Your task to perform on an android device: Open sound settings Image 0: 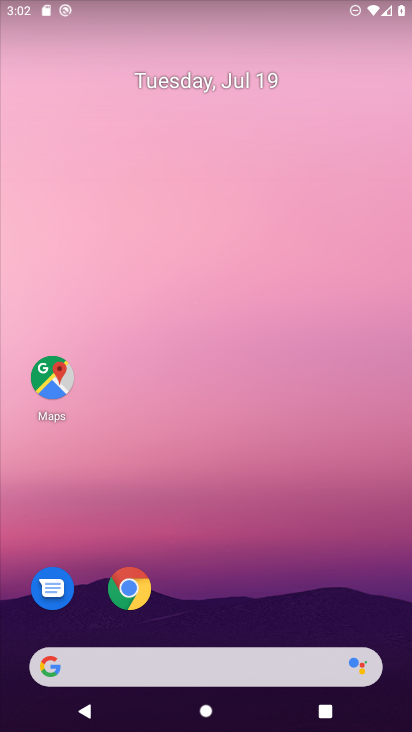
Step 0: drag from (201, 514) to (232, 206)
Your task to perform on an android device: Open sound settings Image 1: 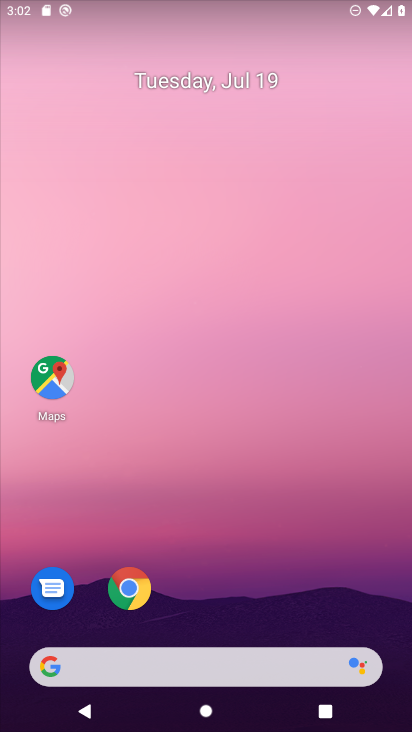
Step 1: drag from (176, 544) to (180, 189)
Your task to perform on an android device: Open sound settings Image 2: 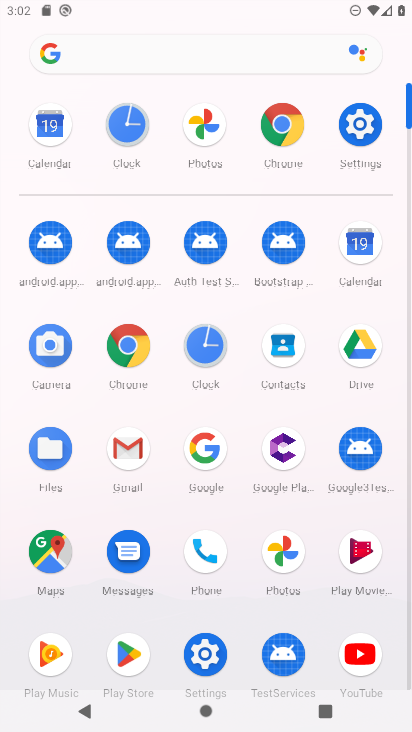
Step 2: click (356, 128)
Your task to perform on an android device: Open sound settings Image 3: 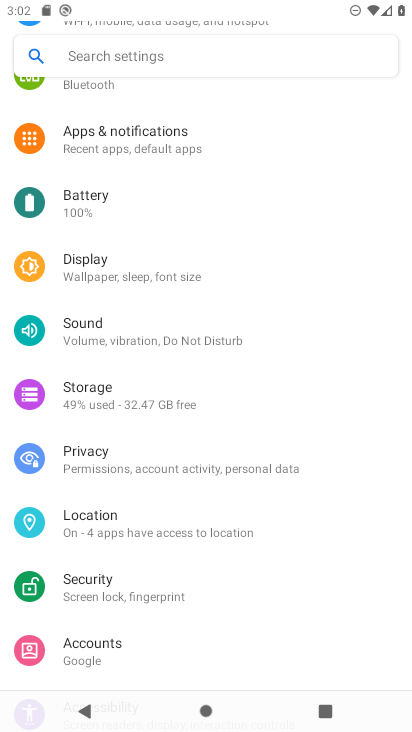
Step 3: click (119, 332)
Your task to perform on an android device: Open sound settings Image 4: 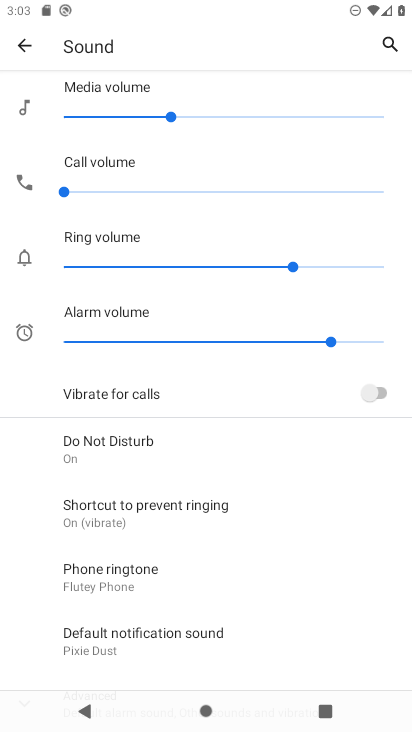
Step 4: task complete